Your task to perform on an android device: Go to Reddit.com Image 0: 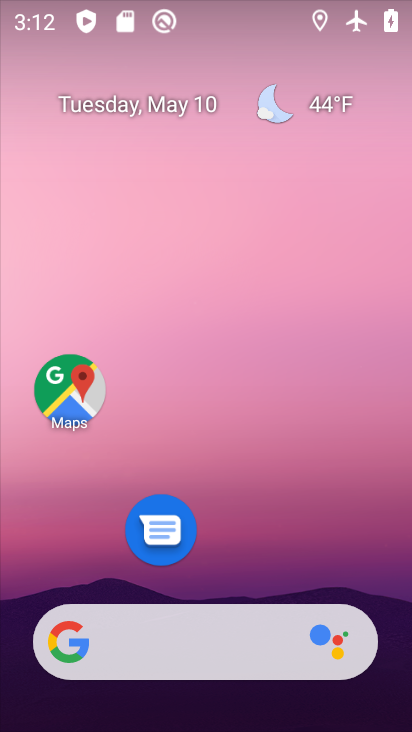
Step 0: drag from (251, 553) to (308, 11)
Your task to perform on an android device: Go to Reddit.com Image 1: 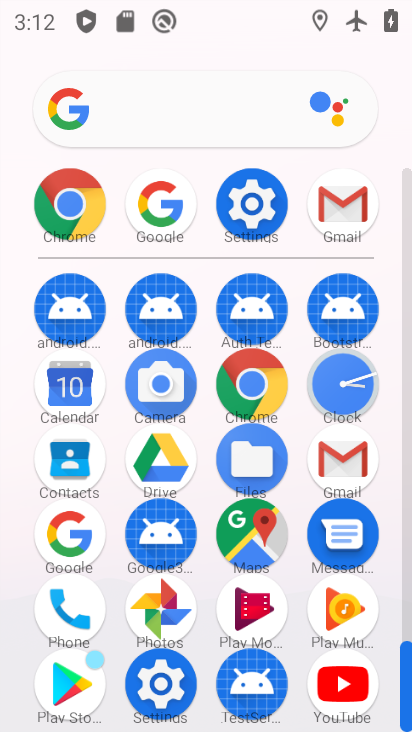
Step 1: click (75, 532)
Your task to perform on an android device: Go to Reddit.com Image 2: 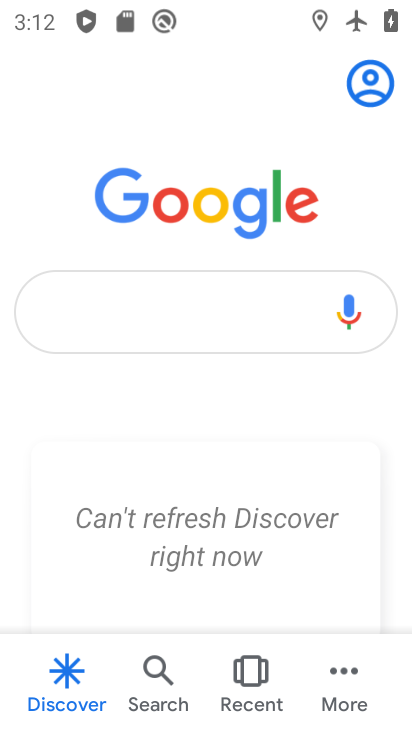
Step 2: click (201, 332)
Your task to perform on an android device: Go to Reddit.com Image 3: 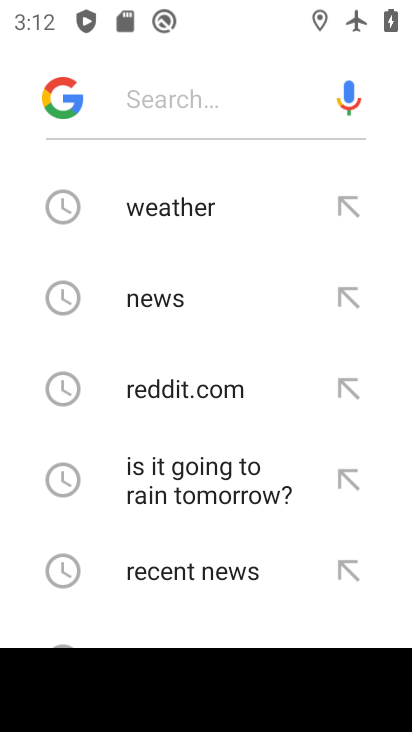
Step 3: click (232, 388)
Your task to perform on an android device: Go to Reddit.com Image 4: 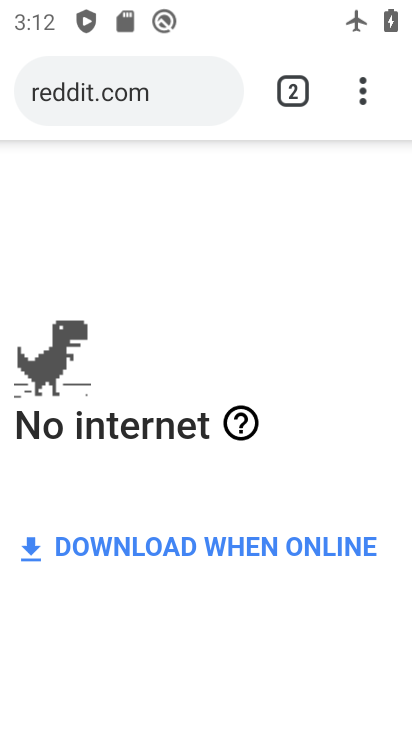
Step 4: task complete